Your task to perform on an android device: Find coffee shops on Maps Image 0: 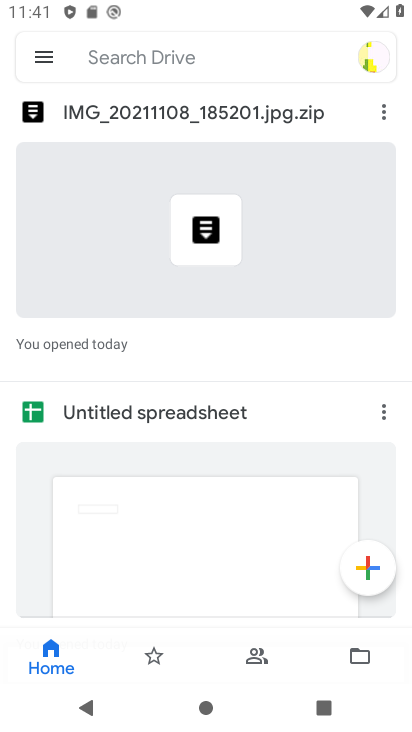
Step 0: press back button
Your task to perform on an android device: Find coffee shops on Maps Image 1: 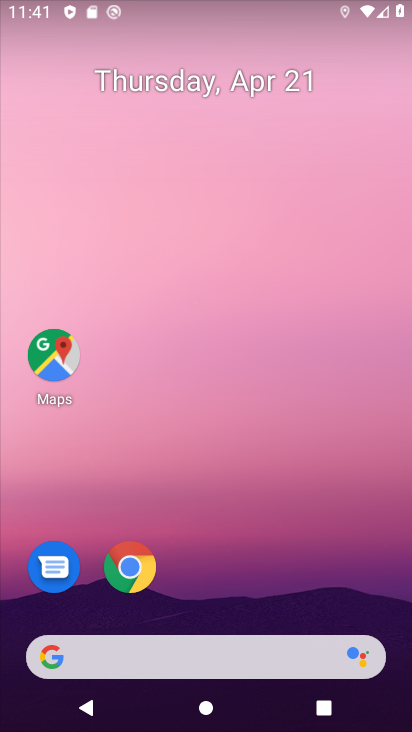
Step 1: click (45, 349)
Your task to perform on an android device: Find coffee shops on Maps Image 2: 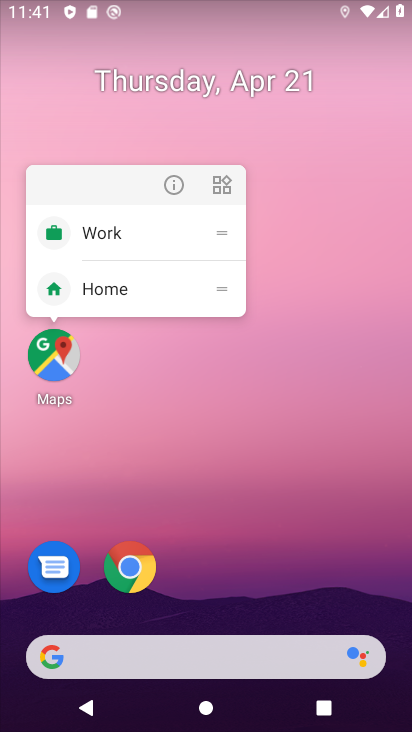
Step 2: click (169, 181)
Your task to perform on an android device: Find coffee shops on Maps Image 3: 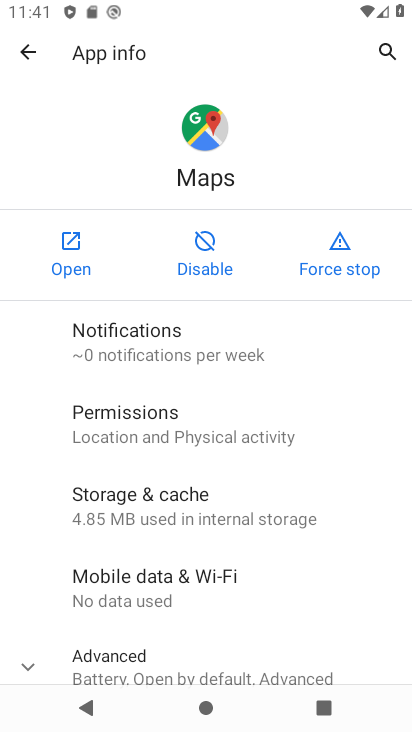
Step 3: click (78, 257)
Your task to perform on an android device: Find coffee shops on Maps Image 4: 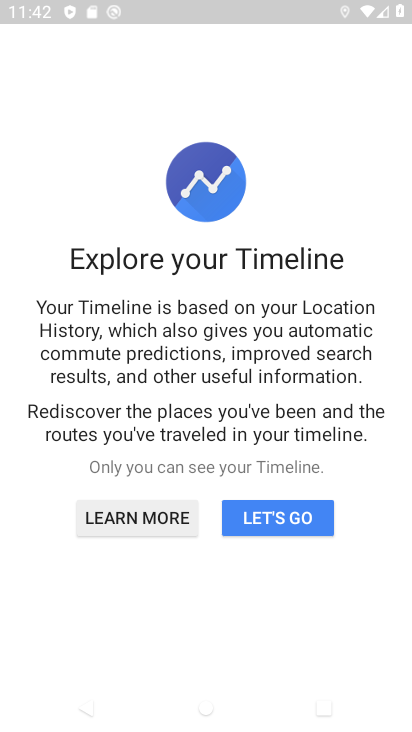
Step 4: click (281, 522)
Your task to perform on an android device: Find coffee shops on Maps Image 5: 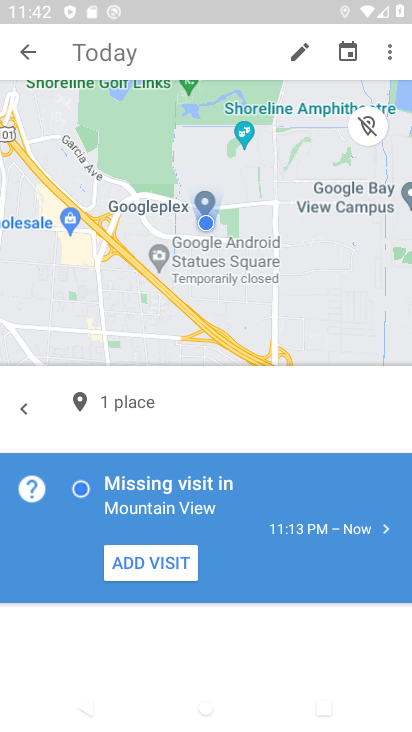
Step 5: click (211, 54)
Your task to perform on an android device: Find coffee shops on Maps Image 6: 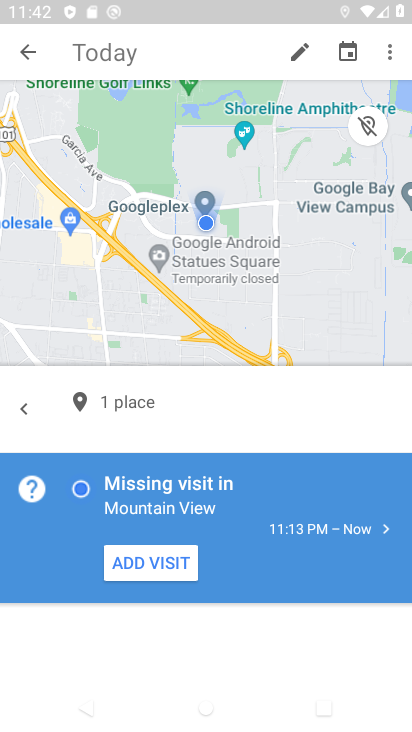
Step 6: click (123, 49)
Your task to perform on an android device: Find coffee shops on Maps Image 7: 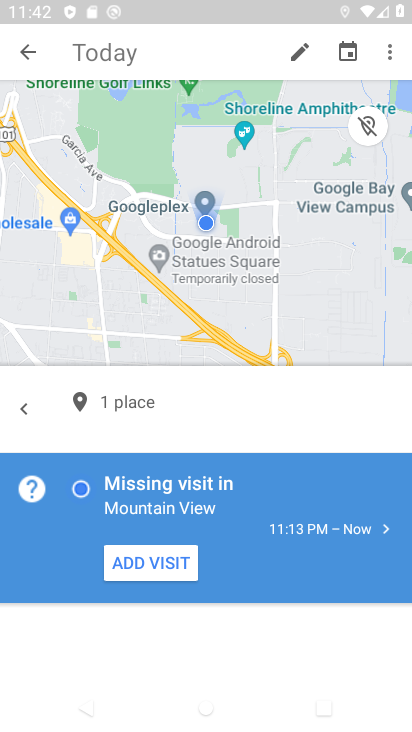
Step 7: click (308, 62)
Your task to perform on an android device: Find coffee shops on Maps Image 8: 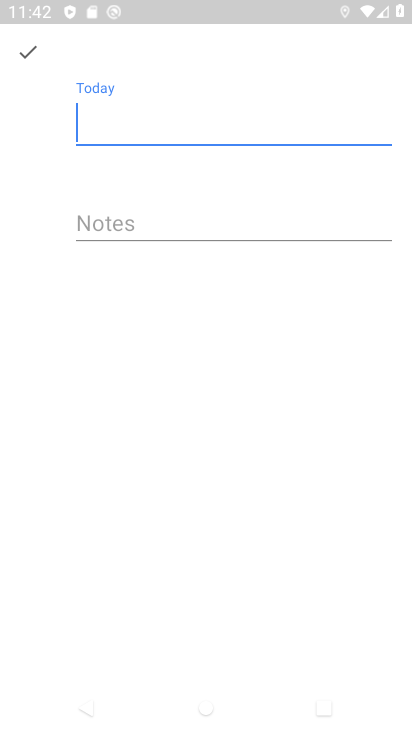
Step 8: click (26, 47)
Your task to perform on an android device: Find coffee shops on Maps Image 9: 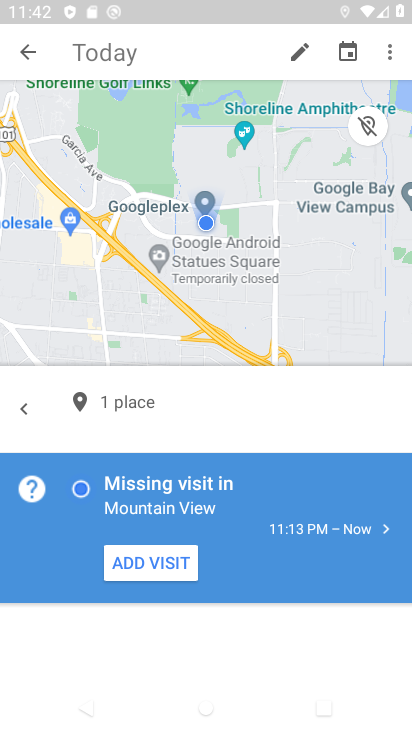
Step 9: click (20, 51)
Your task to perform on an android device: Find coffee shops on Maps Image 10: 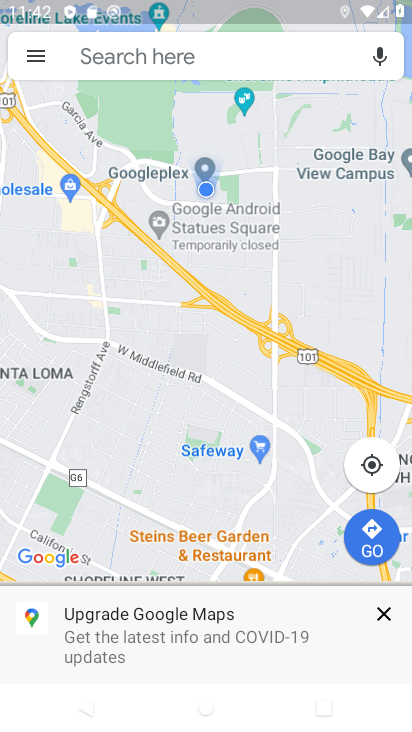
Step 10: click (176, 56)
Your task to perform on an android device: Find coffee shops on Maps Image 11: 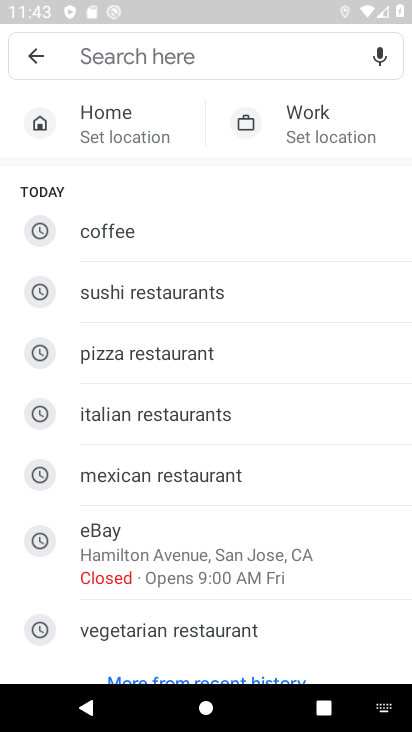
Step 11: type "coffee shops"
Your task to perform on an android device: Find coffee shops on Maps Image 12: 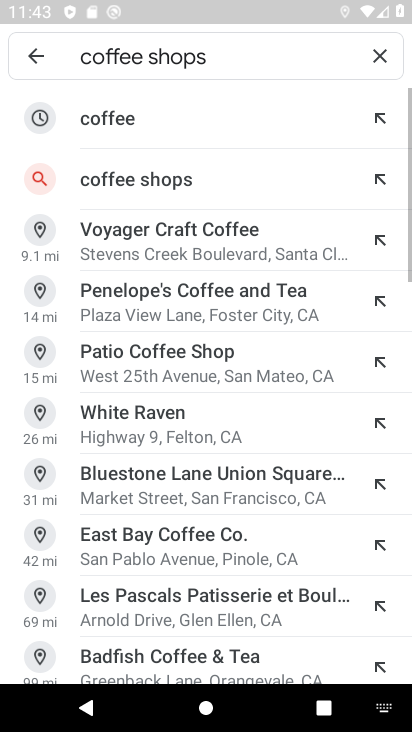
Step 12: click (160, 179)
Your task to perform on an android device: Find coffee shops on Maps Image 13: 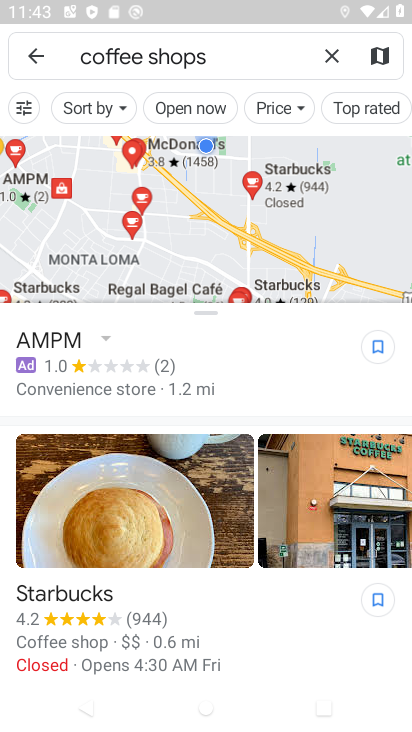
Step 13: task complete